Your task to perform on an android device: What's on my calendar tomorrow? Image 0: 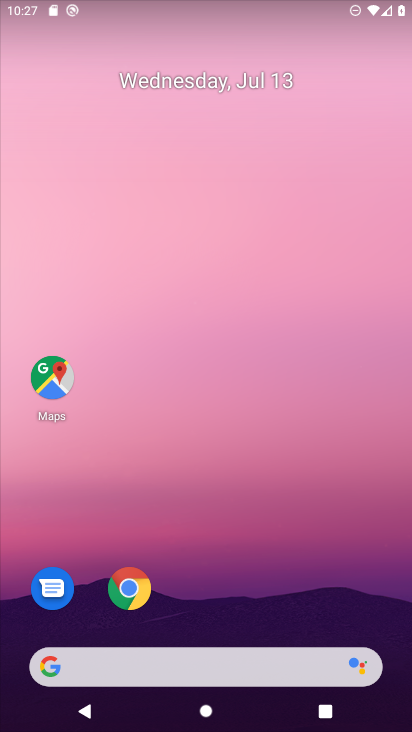
Step 0: drag from (244, 634) to (235, 82)
Your task to perform on an android device: What's on my calendar tomorrow? Image 1: 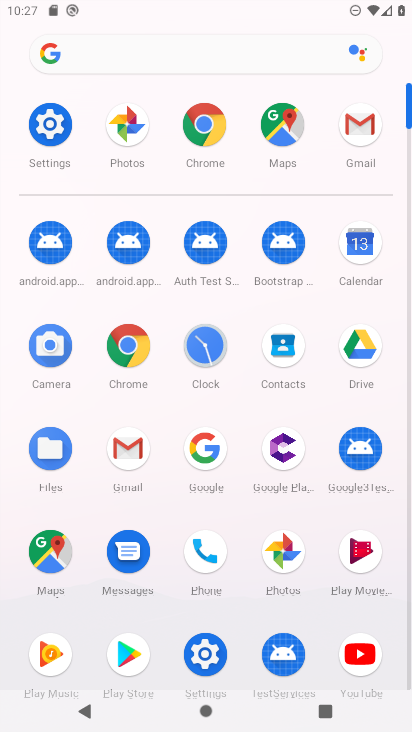
Step 1: click (351, 254)
Your task to perform on an android device: What's on my calendar tomorrow? Image 2: 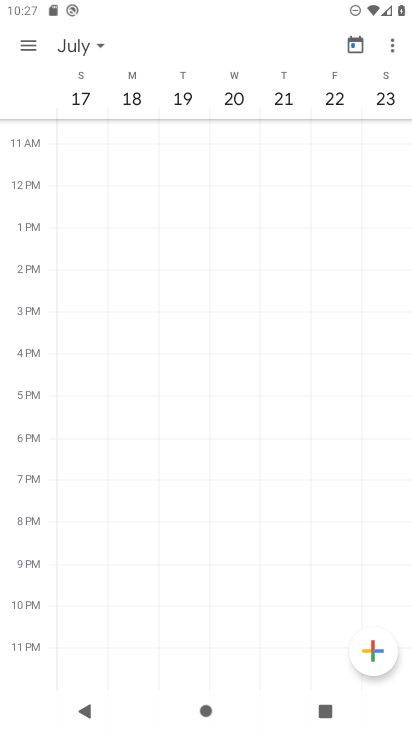
Step 2: click (353, 47)
Your task to perform on an android device: What's on my calendar tomorrow? Image 3: 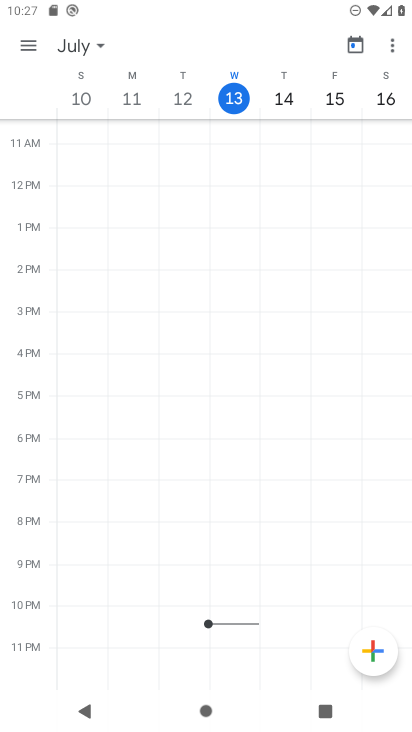
Step 3: click (288, 98)
Your task to perform on an android device: What's on my calendar tomorrow? Image 4: 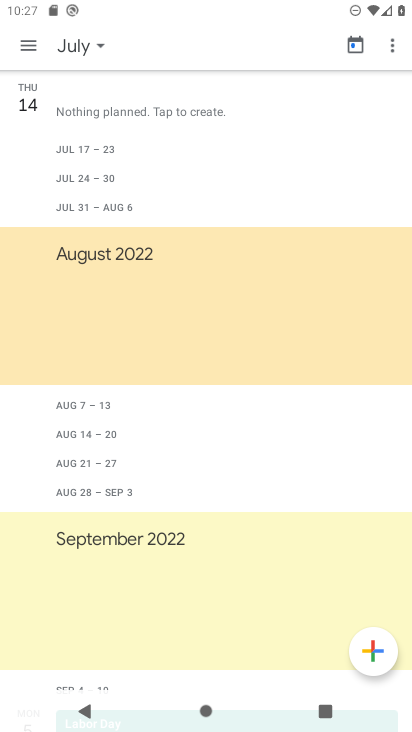
Step 4: task complete